Your task to perform on an android device: delete browsing data in the chrome app Image 0: 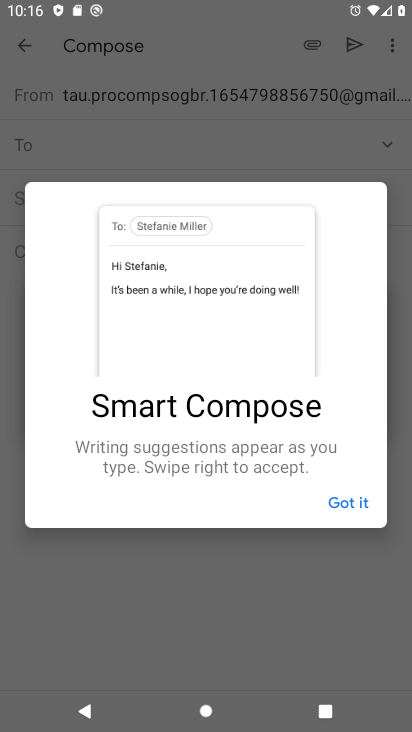
Step 0: click (340, 493)
Your task to perform on an android device: delete browsing data in the chrome app Image 1: 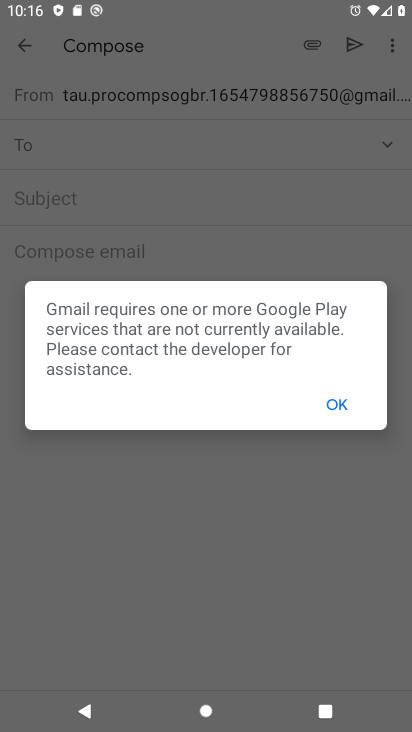
Step 1: click (319, 389)
Your task to perform on an android device: delete browsing data in the chrome app Image 2: 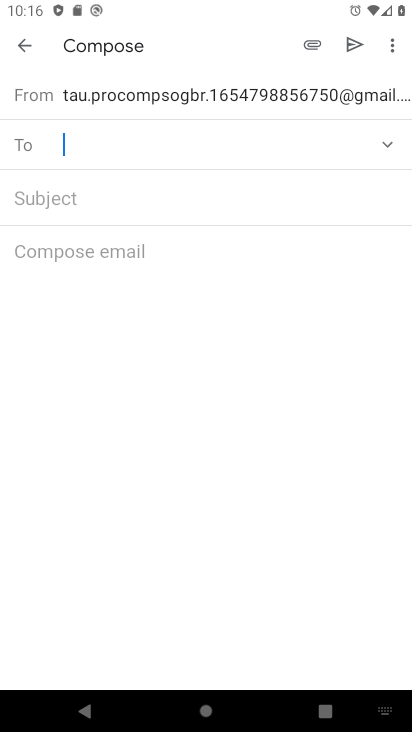
Step 2: press back button
Your task to perform on an android device: delete browsing data in the chrome app Image 3: 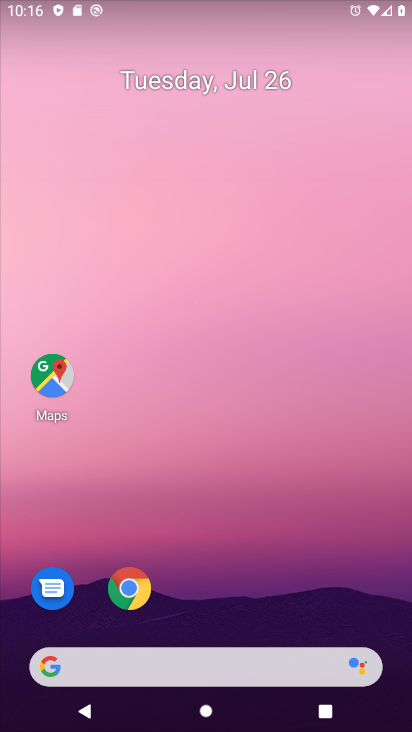
Step 3: click (130, 572)
Your task to perform on an android device: delete browsing data in the chrome app Image 4: 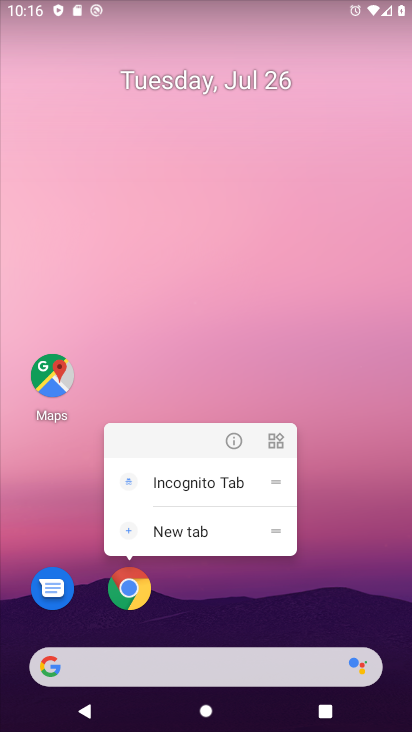
Step 4: click (128, 589)
Your task to perform on an android device: delete browsing data in the chrome app Image 5: 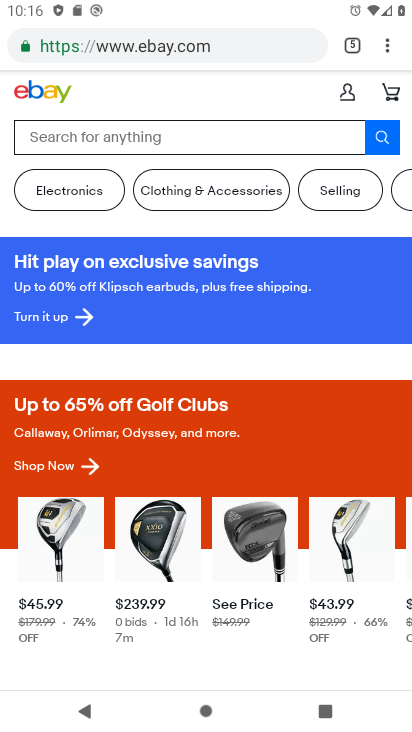
Step 5: drag from (387, 45) to (218, 261)
Your task to perform on an android device: delete browsing data in the chrome app Image 6: 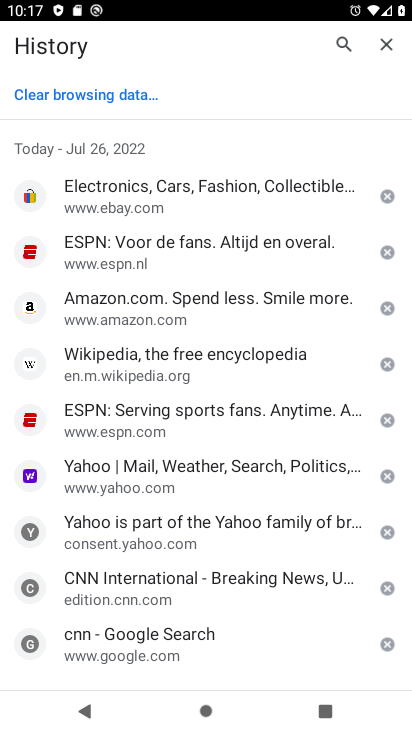
Step 6: click (46, 105)
Your task to perform on an android device: delete browsing data in the chrome app Image 7: 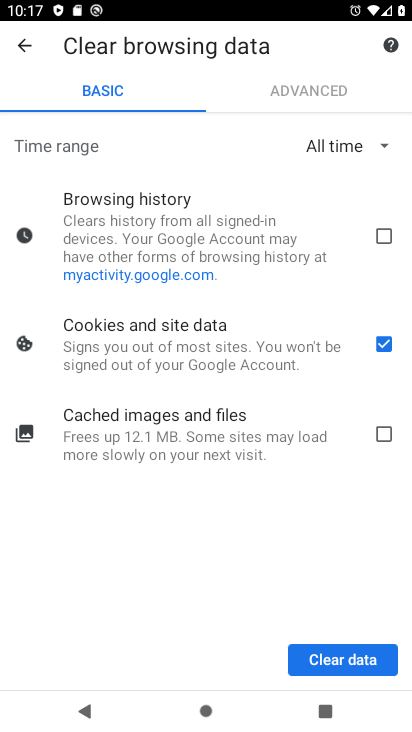
Step 7: click (393, 233)
Your task to perform on an android device: delete browsing data in the chrome app Image 8: 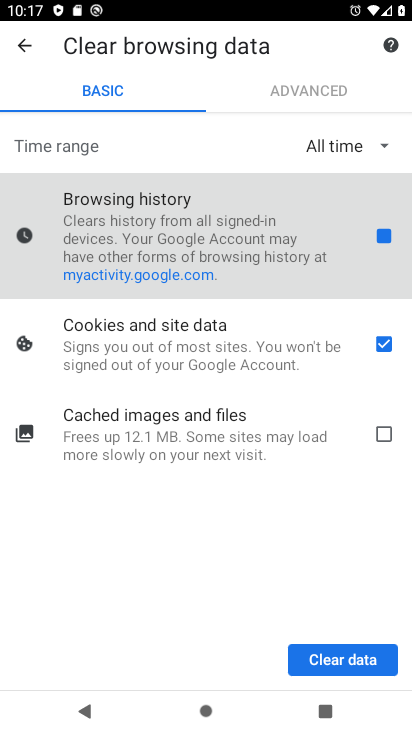
Step 8: click (382, 441)
Your task to perform on an android device: delete browsing data in the chrome app Image 9: 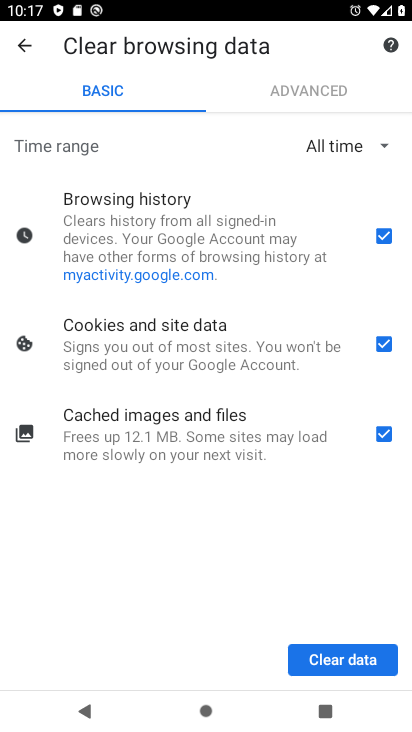
Step 9: click (361, 651)
Your task to perform on an android device: delete browsing data in the chrome app Image 10: 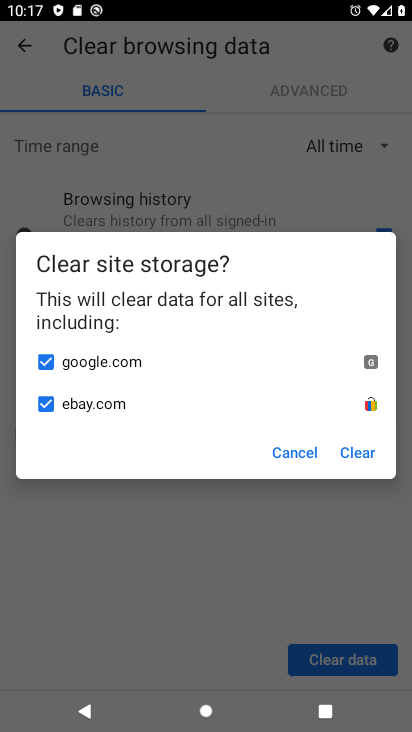
Step 10: click (364, 451)
Your task to perform on an android device: delete browsing data in the chrome app Image 11: 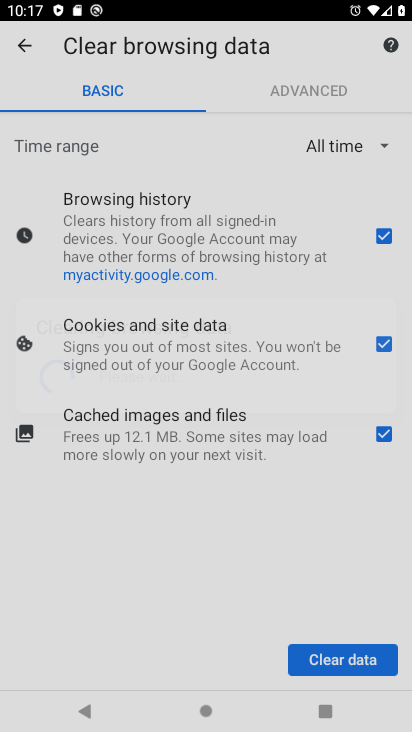
Step 11: task complete